Your task to perform on an android device: turn off notifications in google photos Image 0: 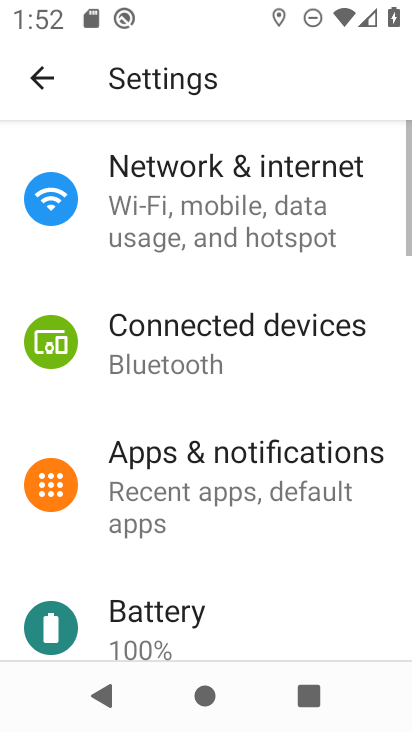
Step 0: press home button
Your task to perform on an android device: turn off notifications in google photos Image 1: 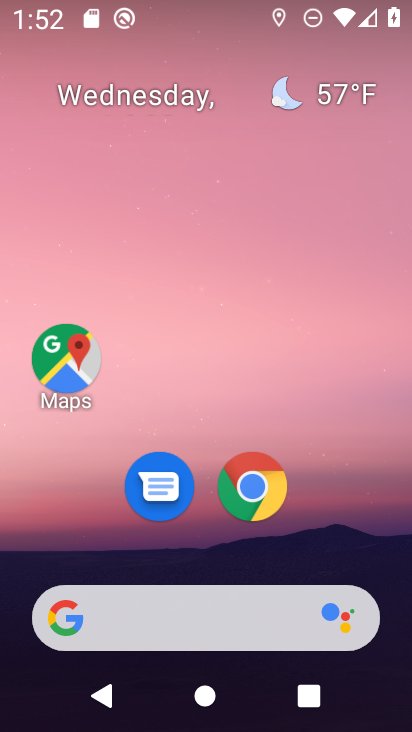
Step 1: drag from (369, 464) to (372, 58)
Your task to perform on an android device: turn off notifications in google photos Image 2: 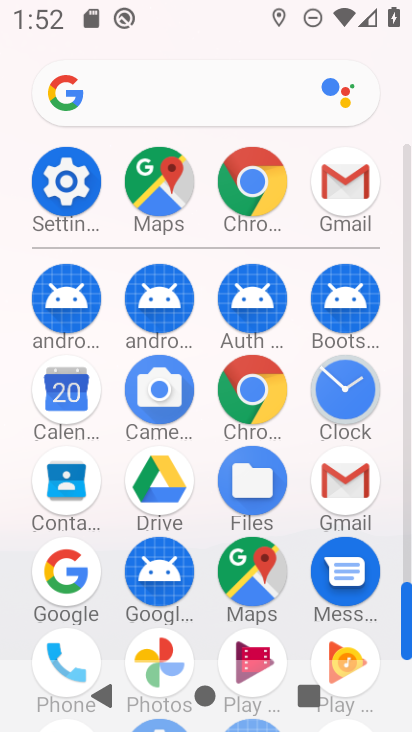
Step 2: drag from (406, 491) to (387, 395)
Your task to perform on an android device: turn off notifications in google photos Image 3: 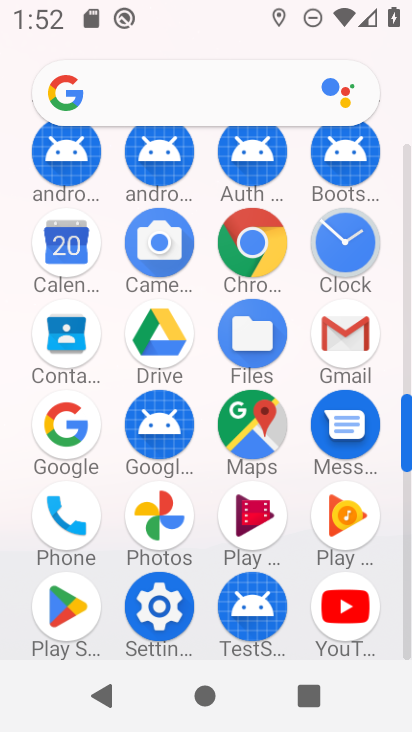
Step 3: click (179, 502)
Your task to perform on an android device: turn off notifications in google photos Image 4: 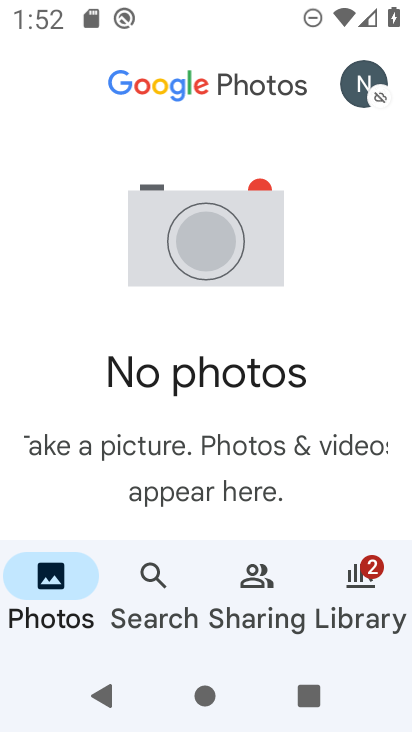
Step 4: click (368, 84)
Your task to perform on an android device: turn off notifications in google photos Image 5: 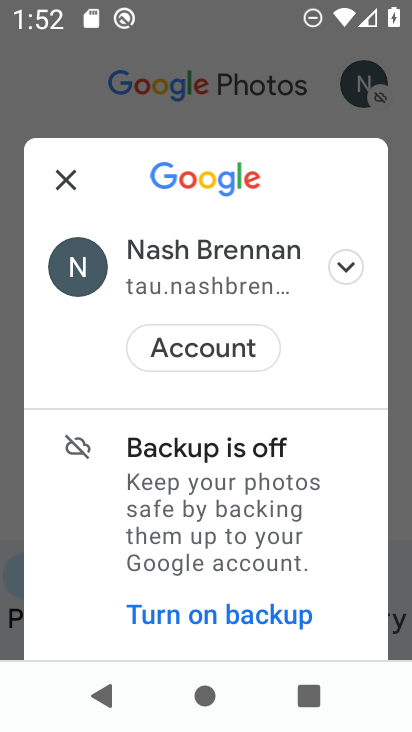
Step 5: drag from (357, 530) to (347, 407)
Your task to perform on an android device: turn off notifications in google photos Image 6: 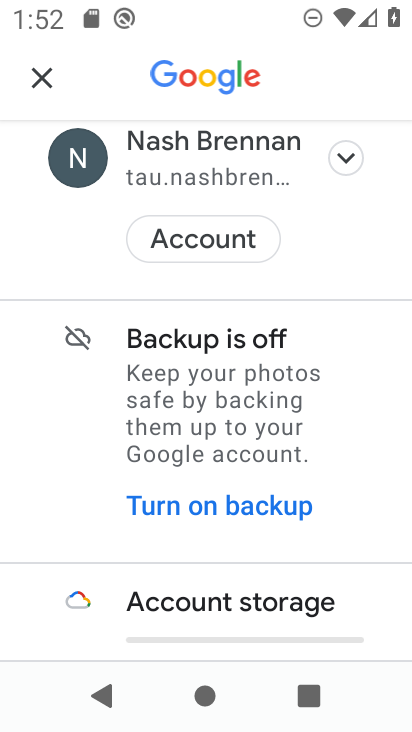
Step 6: drag from (372, 501) to (351, 358)
Your task to perform on an android device: turn off notifications in google photos Image 7: 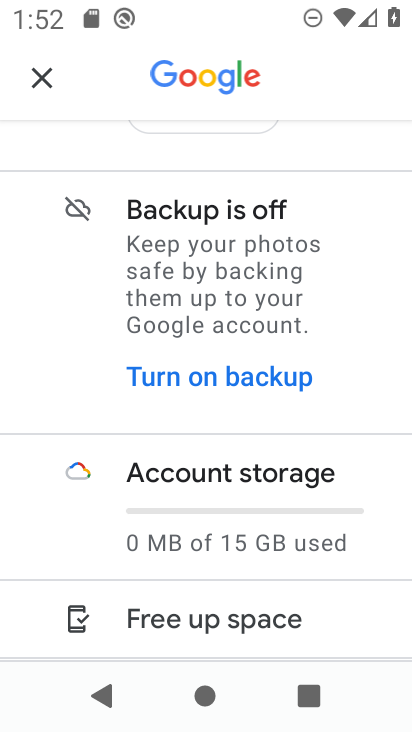
Step 7: drag from (369, 523) to (347, 379)
Your task to perform on an android device: turn off notifications in google photos Image 8: 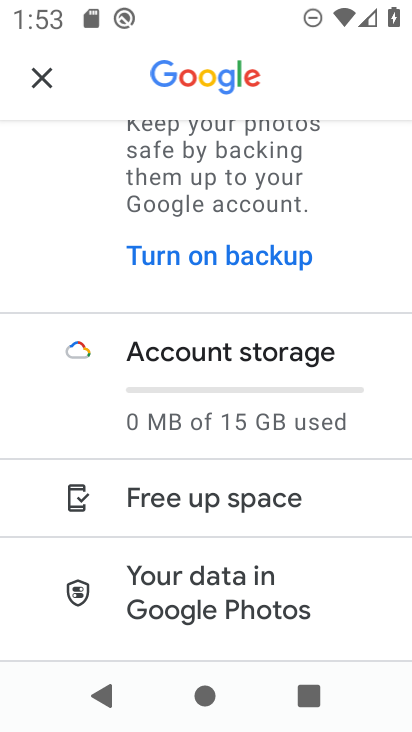
Step 8: drag from (362, 575) to (343, 430)
Your task to perform on an android device: turn off notifications in google photos Image 9: 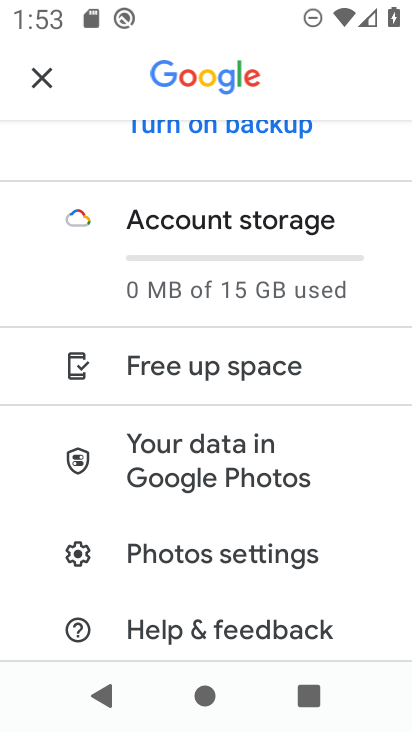
Step 9: click (328, 561)
Your task to perform on an android device: turn off notifications in google photos Image 10: 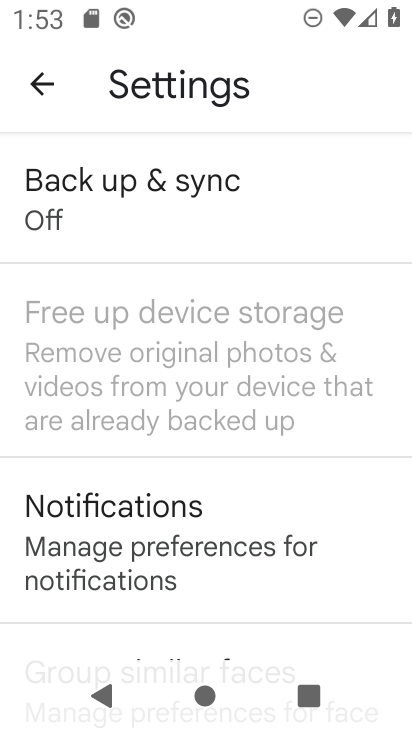
Step 10: click (324, 529)
Your task to perform on an android device: turn off notifications in google photos Image 11: 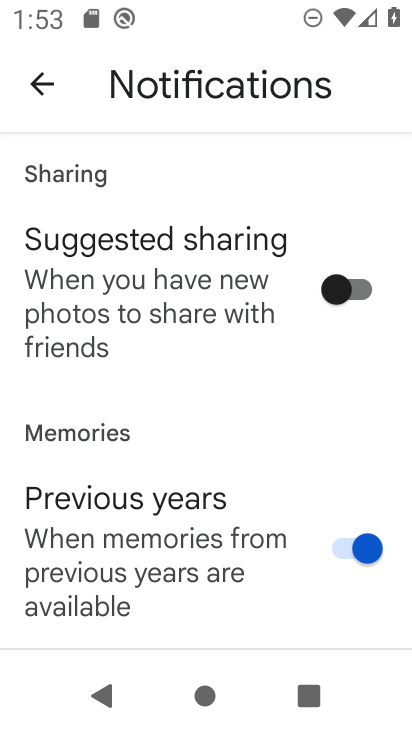
Step 11: drag from (269, 582) to (279, 463)
Your task to perform on an android device: turn off notifications in google photos Image 12: 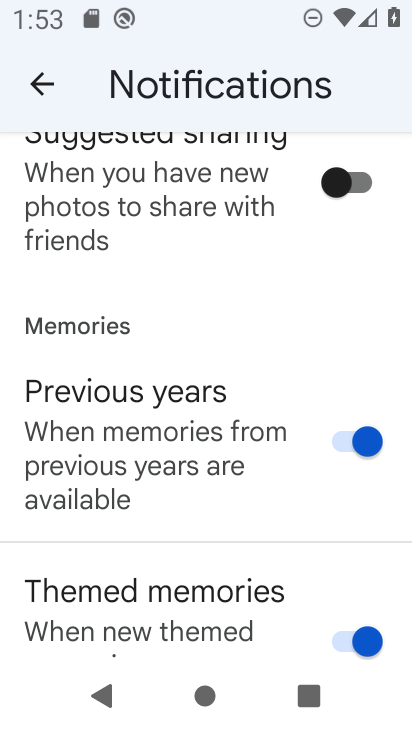
Step 12: drag from (280, 602) to (271, 431)
Your task to perform on an android device: turn off notifications in google photos Image 13: 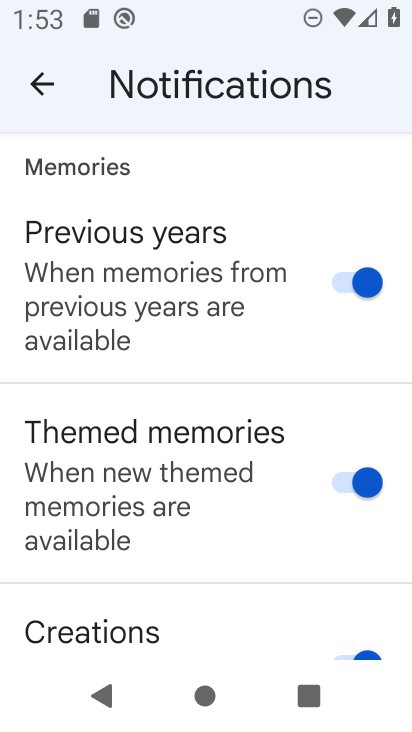
Step 13: drag from (285, 605) to (241, 313)
Your task to perform on an android device: turn off notifications in google photos Image 14: 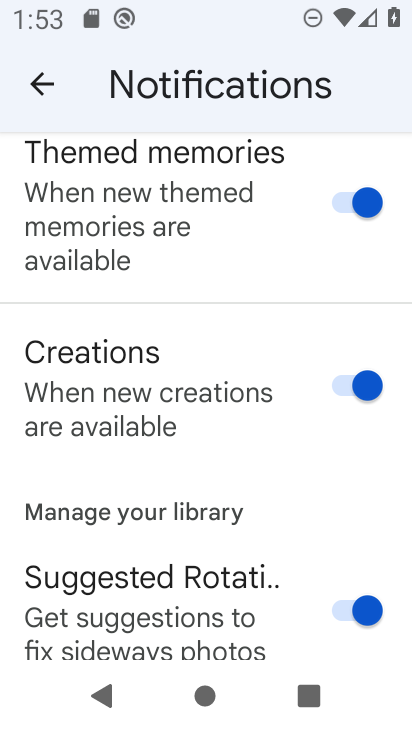
Step 14: drag from (269, 574) to (271, 319)
Your task to perform on an android device: turn off notifications in google photos Image 15: 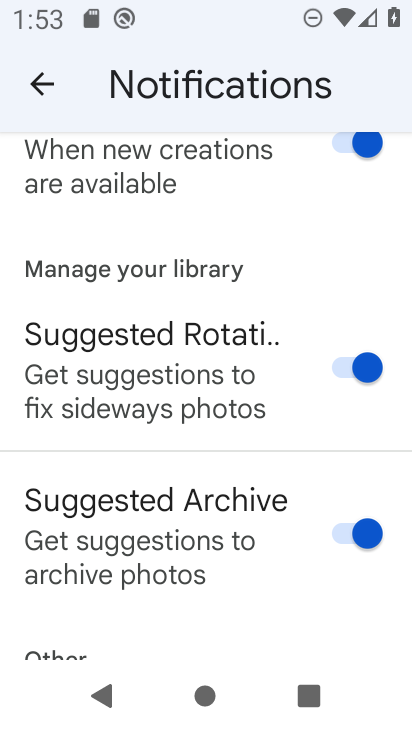
Step 15: drag from (275, 599) to (283, 270)
Your task to perform on an android device: turn off notifications in google photos Image 16: 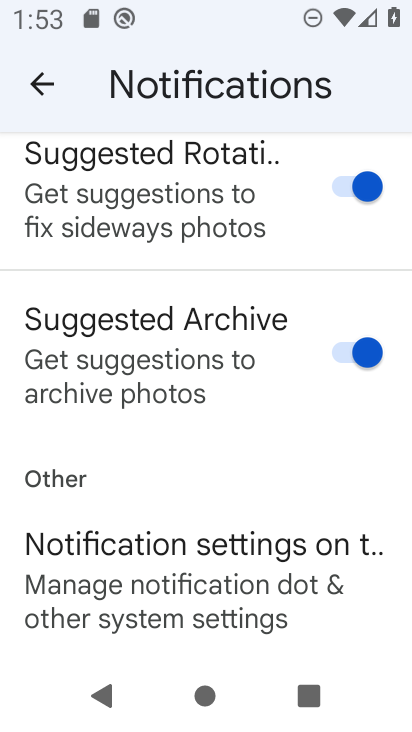
Step 16: click (307, 583)
Your task to perform on an android device: turn off notifications in google photos Image 17: 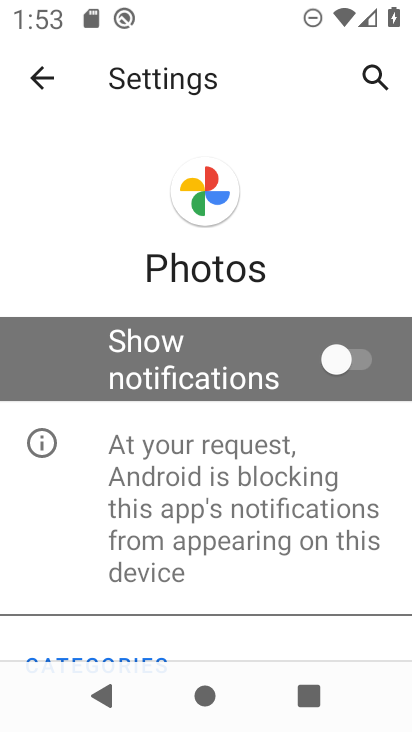
Step 17: task complete